Your task to perform on an android device: turn off location Image 0: 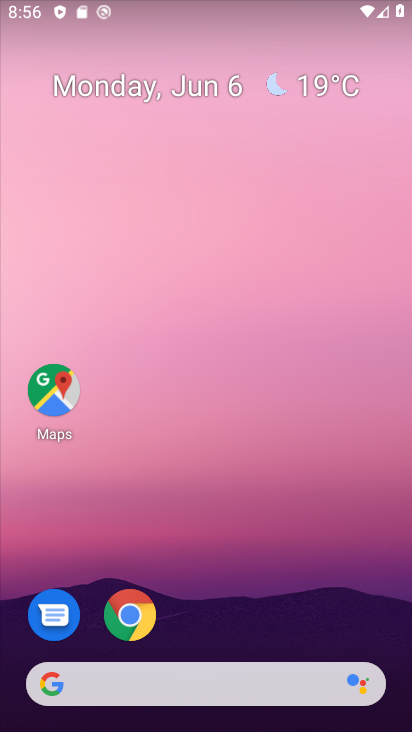
Step 0: drag from (206, 643) to (208, 237)
Your task to perform on an android device: turn off location Image 1: 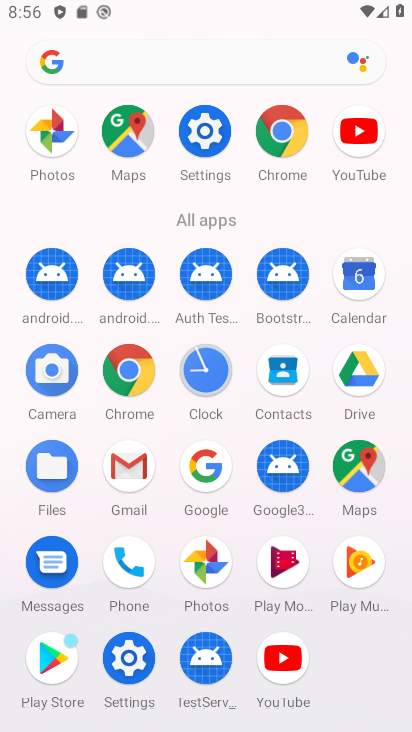
Step 1: click (198, 125)
Your task to perform on an android device: turn off location Image 2: 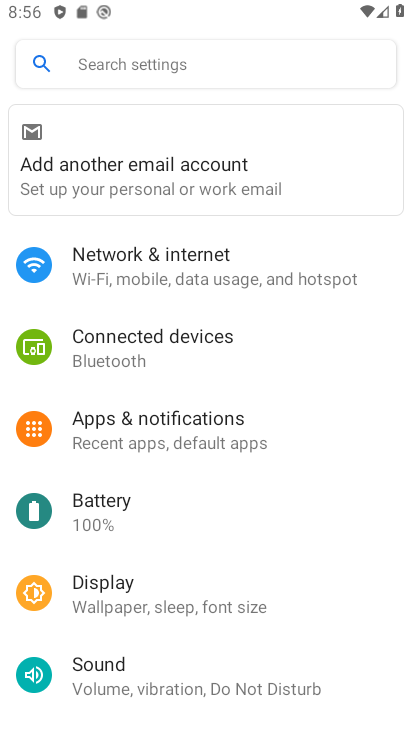
Step 2: drag from (214, 518) to (233, 32)
Your task to perform on an android device: turn off location Image 3: 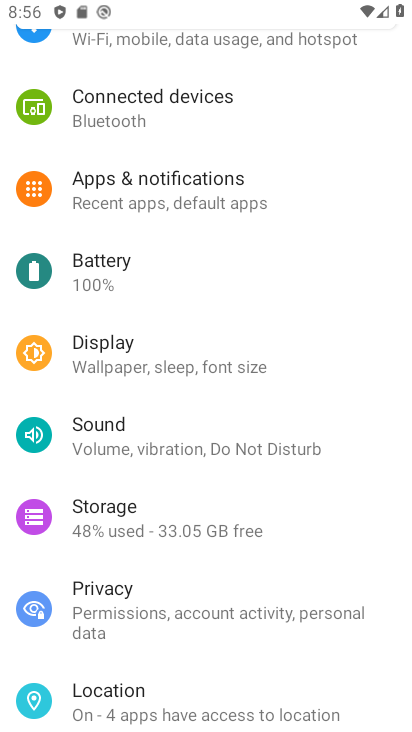
Step 3: click (143, 677)
Your task to perform on an android device: turn off location Image 4: 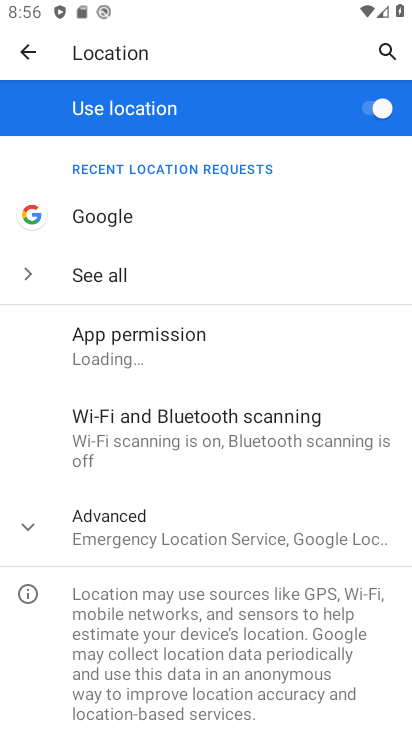
Step 4: click (369, 124)
Your task to perform on an android device: turn off location Image 5: 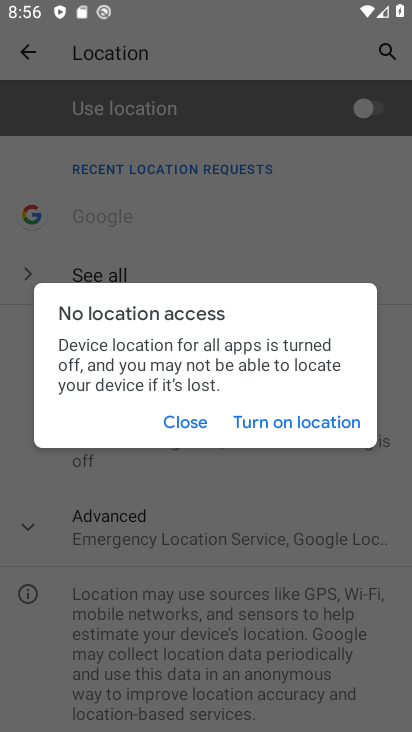
Step 5: click (175, 415)
Your task to perform on an android device: turn off location Image 6: 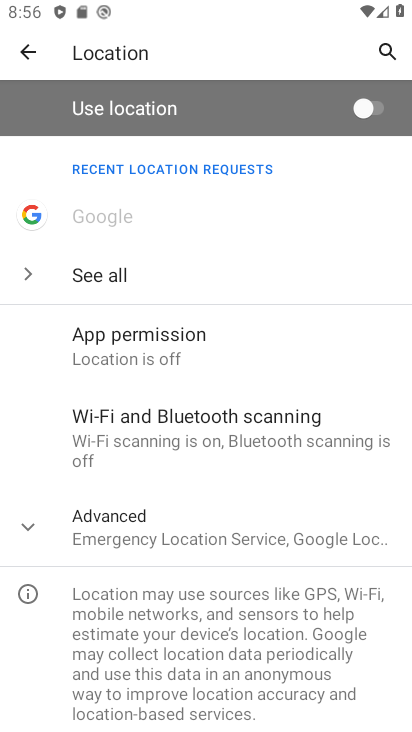
Step 6: task complete